Your task to perform on an android device: toggle improve location accuracy Image 0: 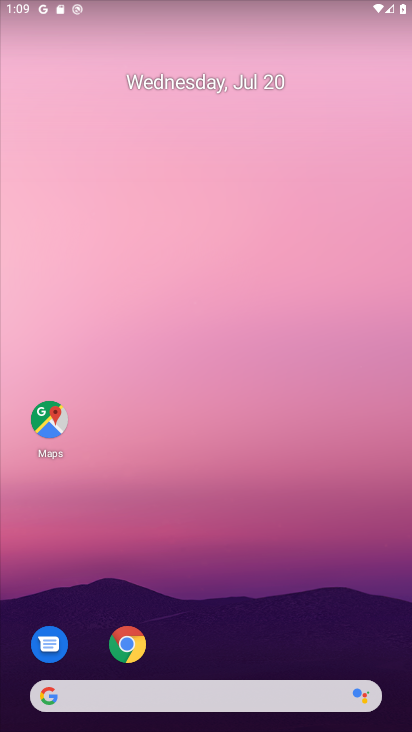
Step 0: drag from (206, 669) to (256, 54)
Your task to perform on an android device: toggle improve location accuracy Image 1: 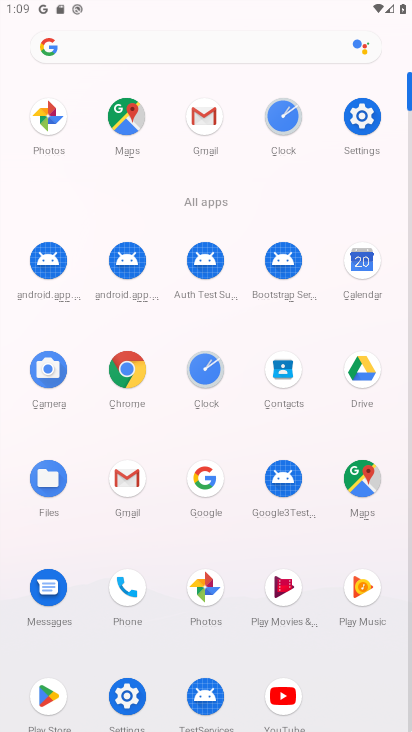
Step 1: click (365, 120)
Your task to perform on an android device: toggle improve location accuracy Image 2: 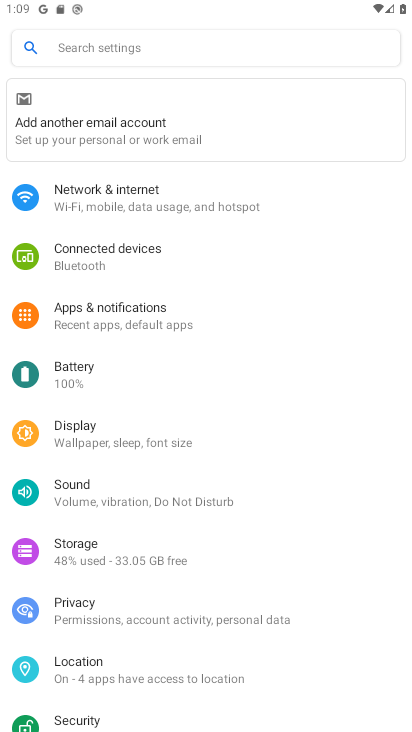
Step 2: click (136, 674)
Your task to perform on an android device: toggle improve location accuracy Image 3: 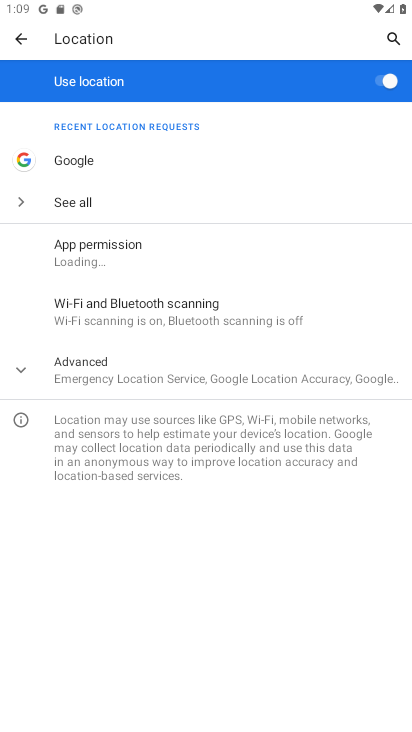
Step 3: click (192, 364)
Your task to perform on an android device: toggle improve location accuracy Image 4: 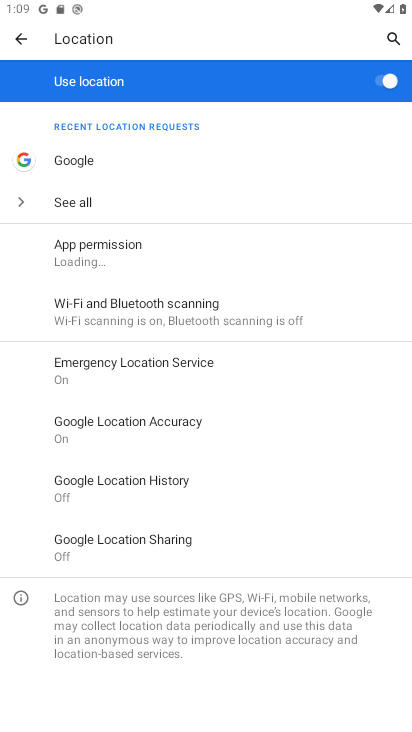
Step 4: click (164, 425)
Your task to perform on an android device: toggle improve location accuracy Image 5: 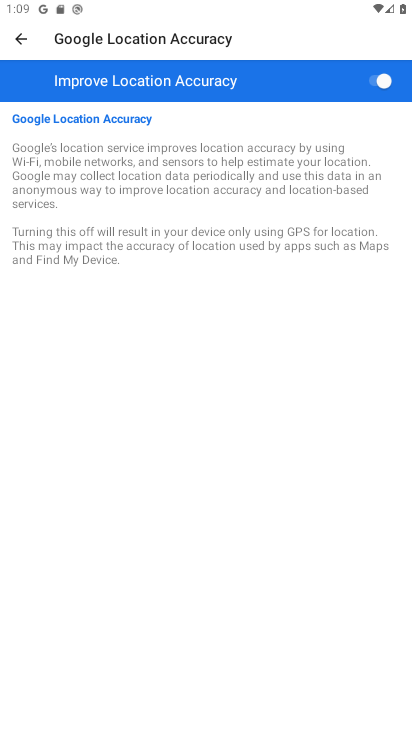
Step 5: click (383, 83)
Your task to perform on an android device: toggle improve location accuracy Image 6: 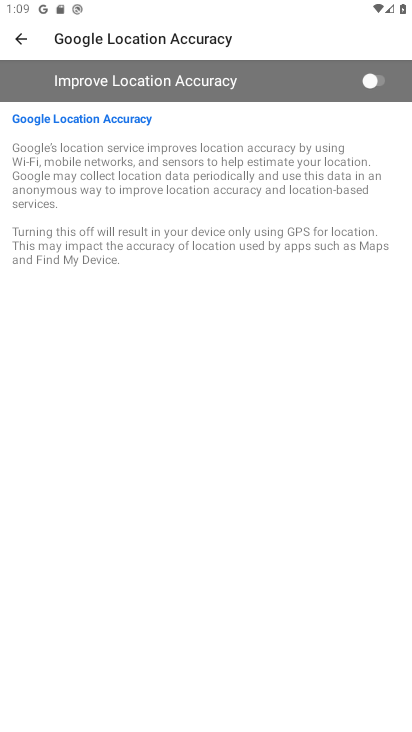
Step 6: task complete